Your task to perform on an android device: set default search engine in the chrome app Image 0: 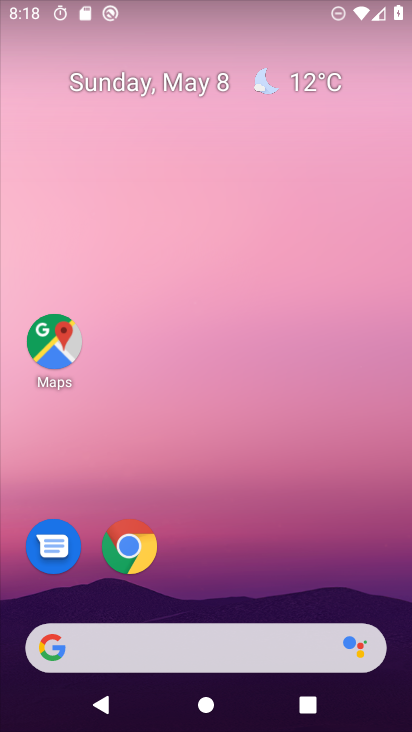
Step 0: drag from (231, 558) to (289, 14)
Your task to perform on an android device: set default search engine in the chrome app Image 1: 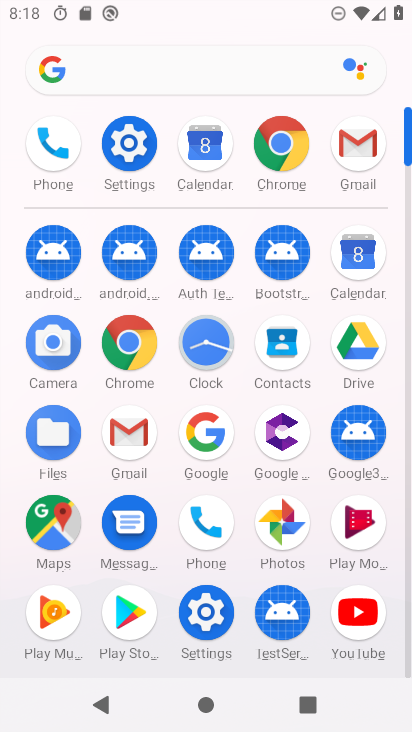
Step 1: click (277, 127)
Your task to perform on an android device: set default search engine in the chrome app Image 2: 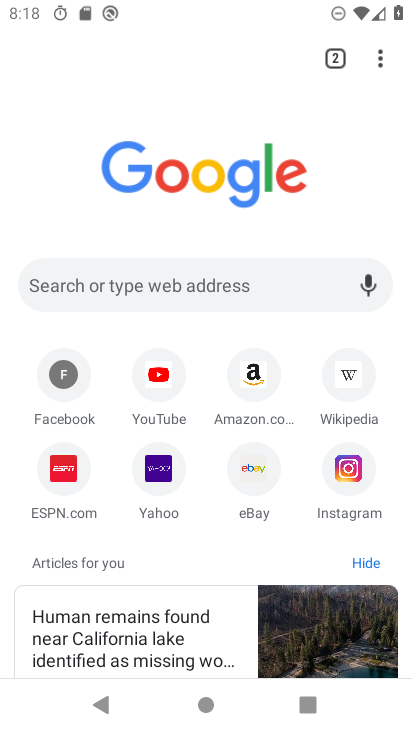
Step 2: click (373, 59)
Your task to perform on an android device: set default search engine in the chrome app Image 3: 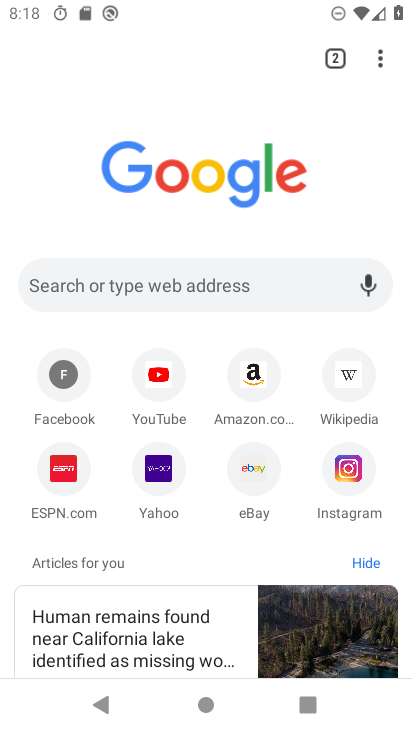
Step 3: click (373, 59)
Your task to perform on an android device: set default search engine in the chrome app Image 4: 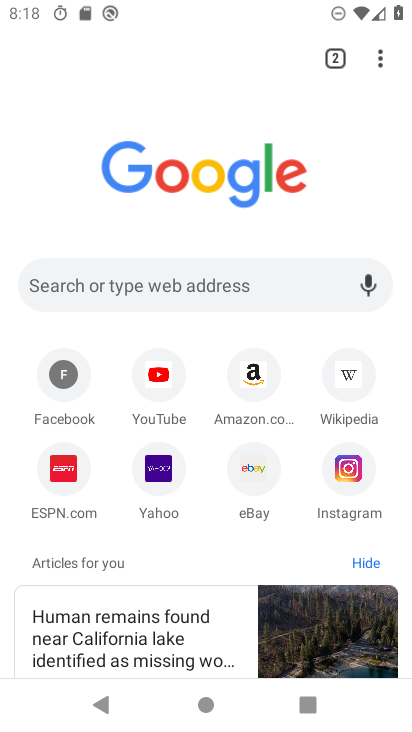
Step 4: click (373, 60)
Your task to perform on an android device: set default search engine in the chrome app Image 5: 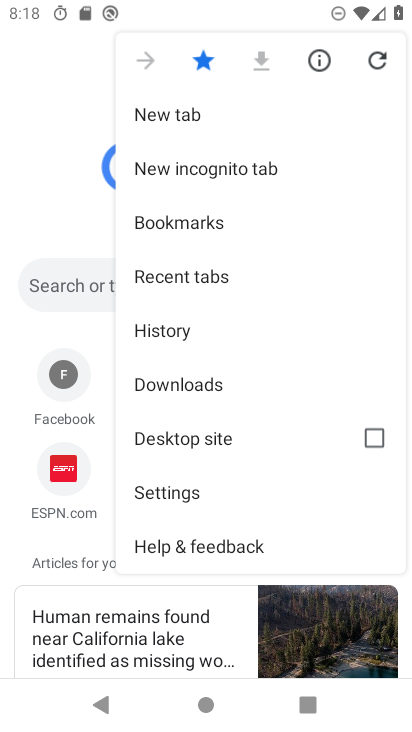
Step 5: click (192, 501)
Your task to perform on an android device: set default search engine in the chrome app Image 6: 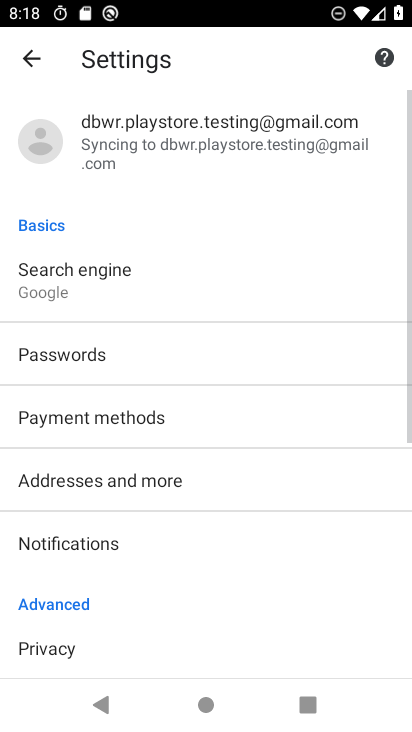
Step 6: click (169, 281)
Your task to perform on an android device: set default search engine in the chrome app Image 7: 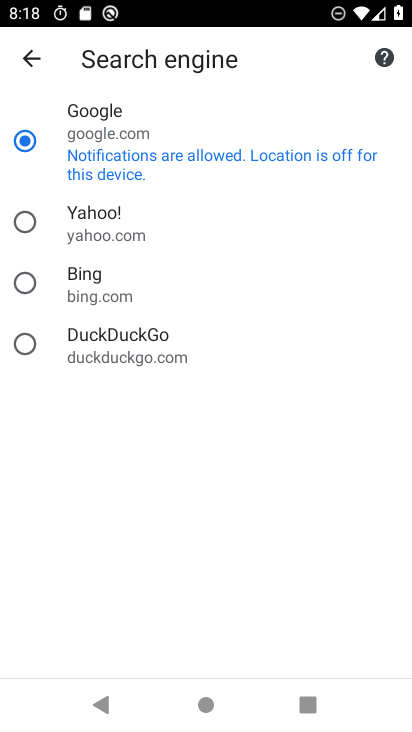
Step 7: task complete